Your task to perform on an android device: toggle show notifications on the lock screen Image 0: 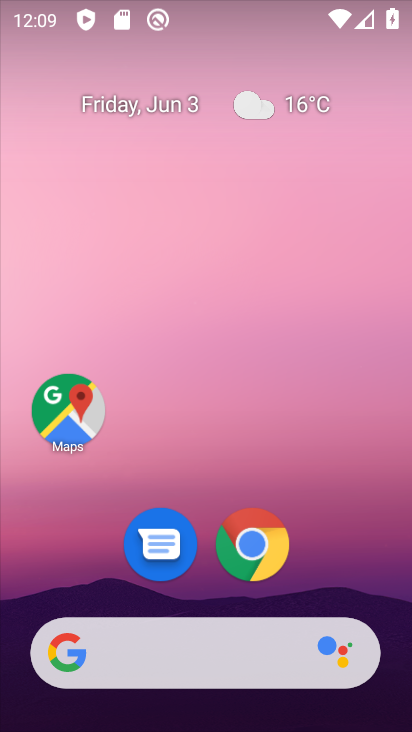
Step 0: drag from (322, 477) to (281, 51)
Your task to perform on an android device: toggle show notifications on the lock screen Image 1: 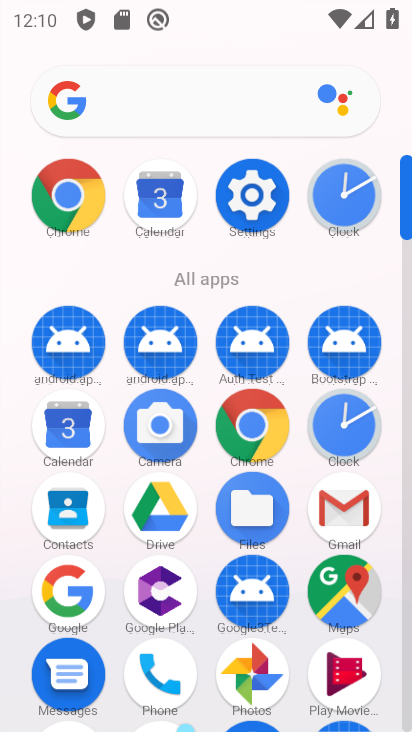
Step 1: click (262, 228)
Your task to perform on an android device: toggle show notifications on the lock screen Image 2: 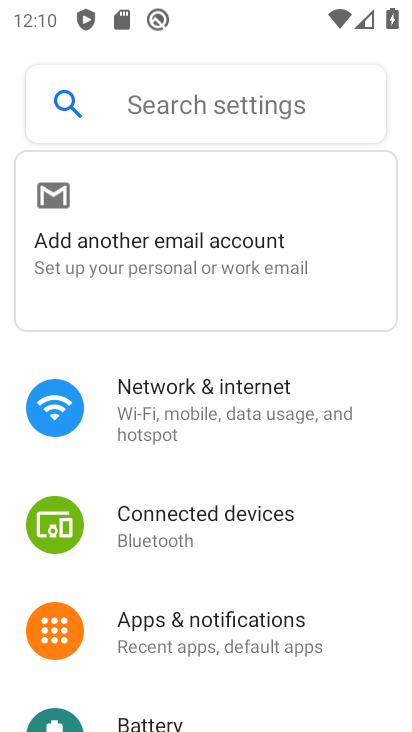
Step 2: click (270, 636)
Your task to perform on an android device: toggle show notifications on the lock screen Image 3: 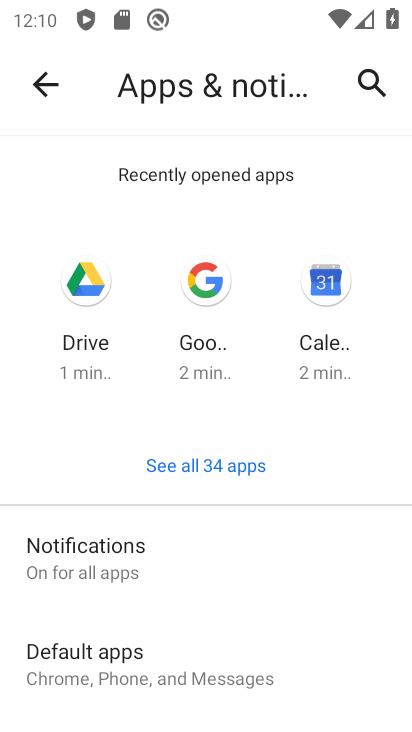
Step 3: drag from (279, 637) to (238, 338)
Your task to perform on an android device: toggle show notifications on the lock screen Image 4: 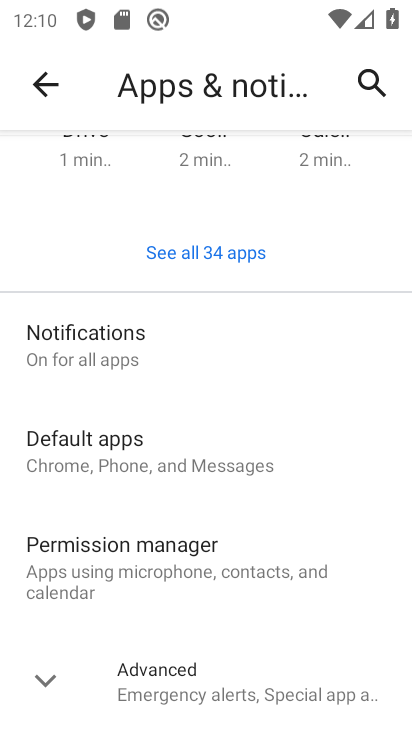
Step 4: drag from (253, 602) to (279, 359)
Your task to perform on an android device: toggle show notifications on the lock screen Image 5: 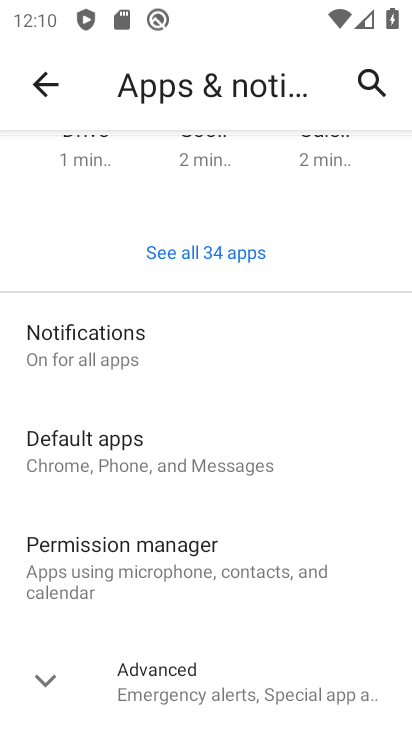
Step 5: click (124, 352)
Your task to perform on an android device: toggle show notifications on the lock screen Image 6: 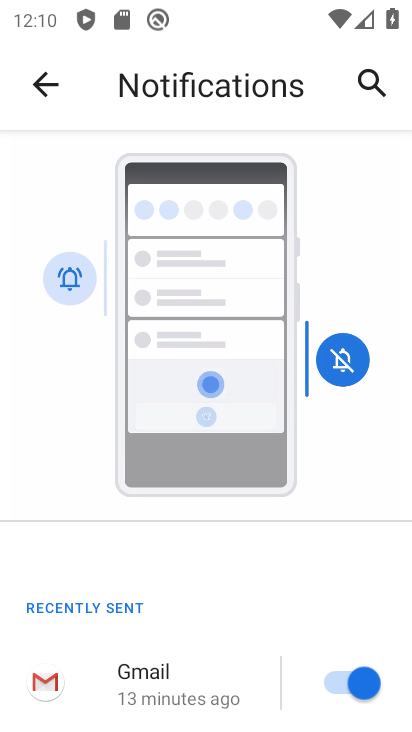
Step 6: drag from (230, 662) to (313, 216)
Your task to perform on an android device: toggle show notifications on the lock screen Image 7: 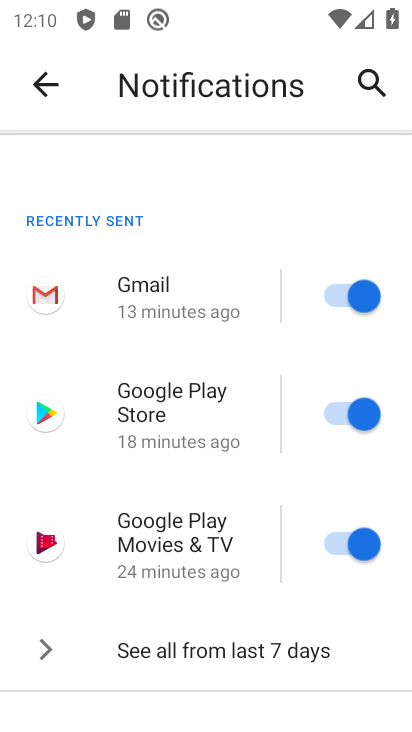
Step 7: drag from (228, 695) to (279, 220)
Your task to perform on an android device: toggle show notifications on the lock screen Image 8: 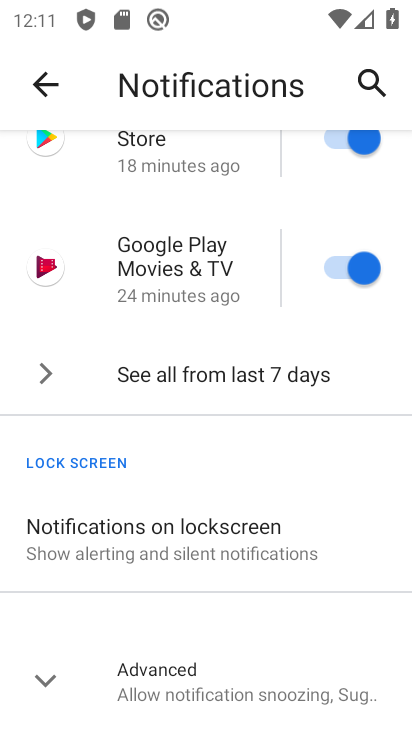
Step 8: click (255, 520)
Your task to perform on an android device: toggle show notifications on the lock screen Image 9: 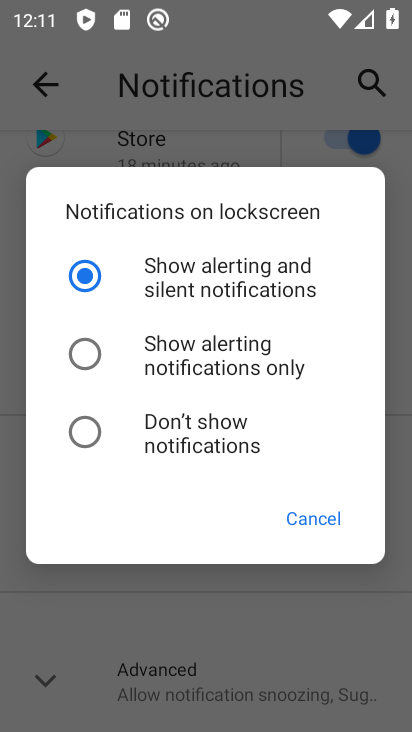
Step 9: click (186, 443)
Your task to perform on an android device: toggle show notifications on the lock screen Image 10: 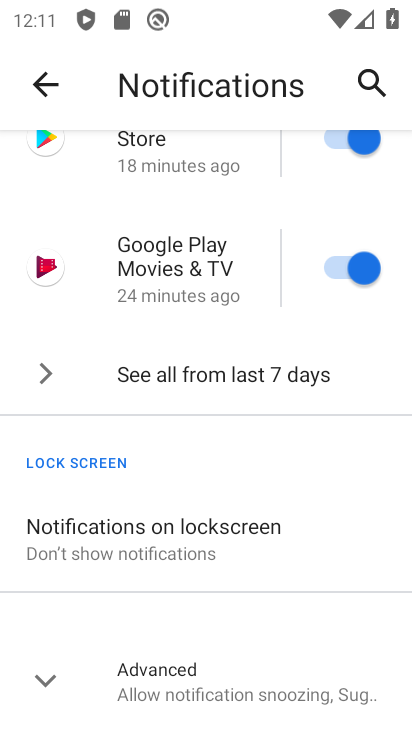
Step 10: task complete